Your task to perform on an android device: visit the assistant section in the google photos Image 0: 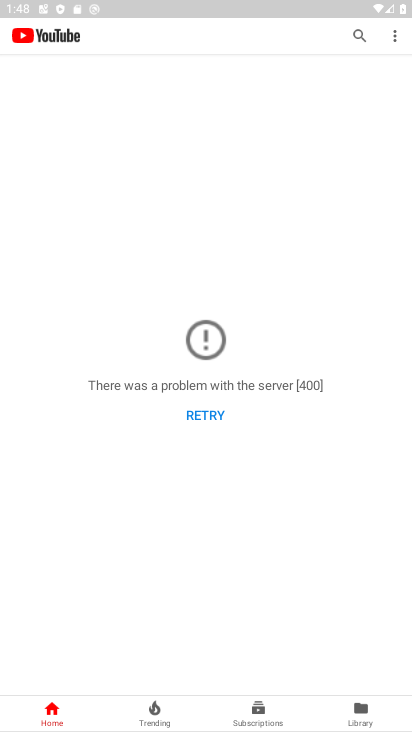
Step 0: press home button
Your task to perform on an android device: visit the assistant section in the google photos Image 1: 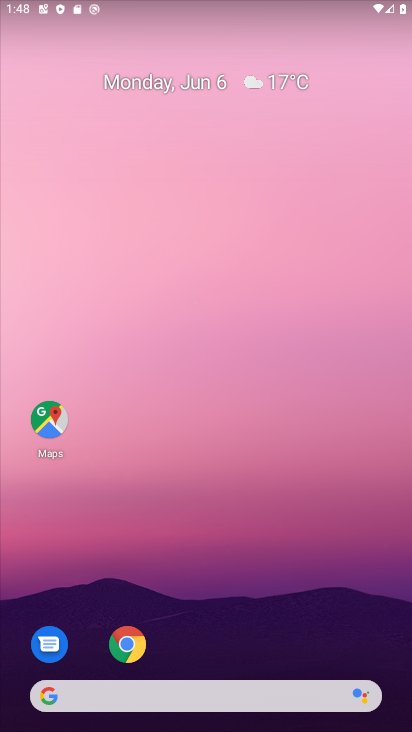
Step 1: drag from (163, 706) to (237, 91)
Your task to perform on an android device: visit the assistant section in the google photos Image 2: 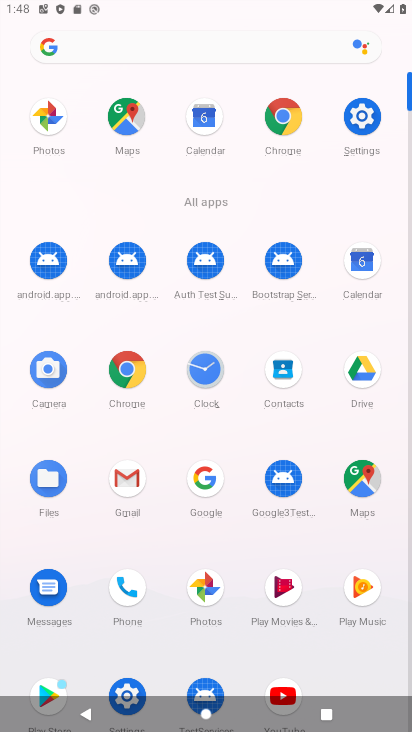
Step 2: click (31, 130)
Your task to perform on an android device: visit the assistant section in the google photos Image 3: 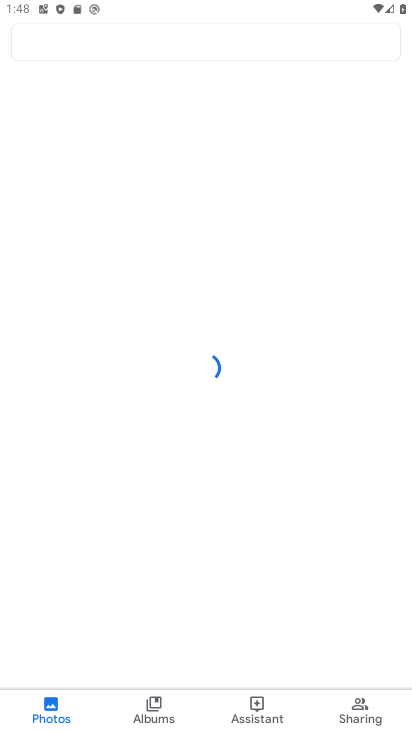
Step 3: click (247, 712)
Your task to perform on an android device: visit the assistant section in the google photos Image 4: 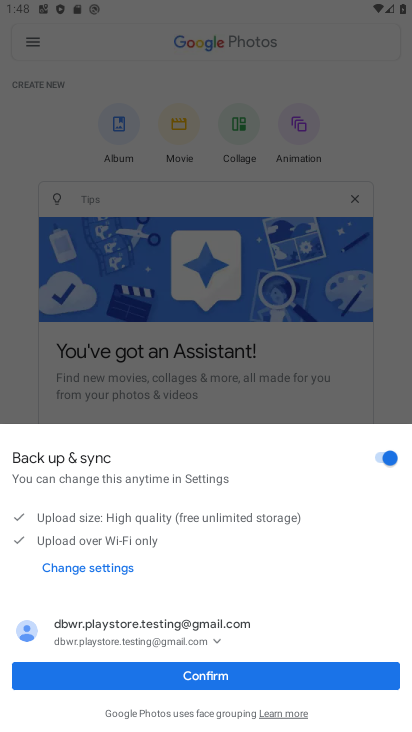
Step 4: click (252, 677)
Your task to perform on an android device: visit the assistant section in the google photos Image 5: 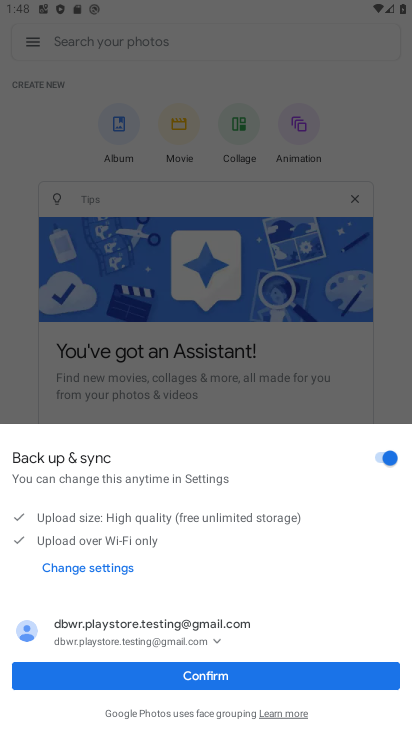
Step 5: click (206, 669)
Your task to perform on an android device: visit the assistant section in the google photos Image 6: 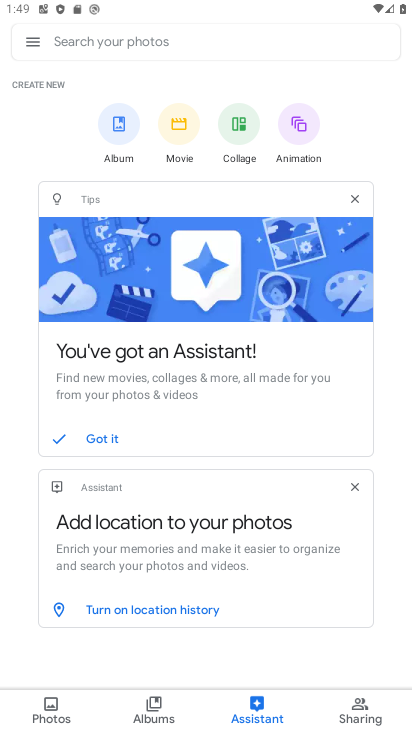
Step 6: task complete